Your task to perform on an android device: turn off priority inbox in the gmail app Image 0: 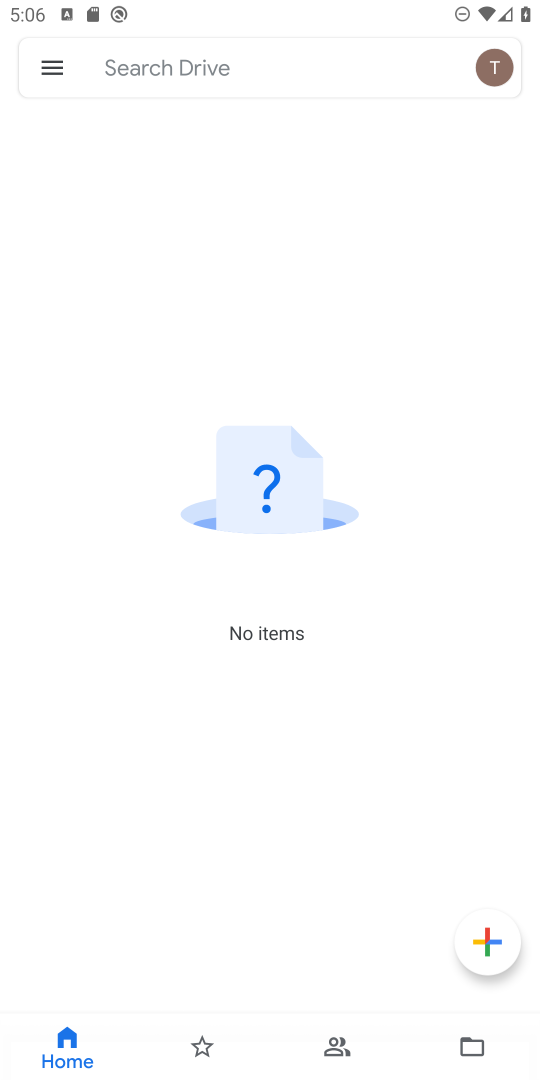
Step 0: press home button
Your task to perform on an android device: turn off priority inbox in the gmail app Image 1: 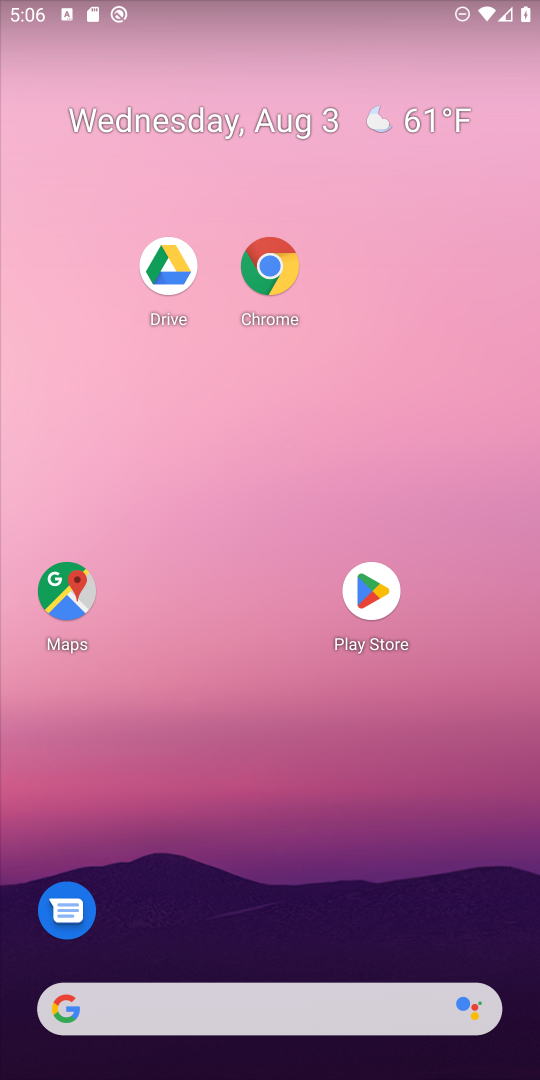
Step 1: drag from (356, 1005) to (440, 56)
Your task to perform on an android device: turn off priority inbox in the gmail app Image 2: 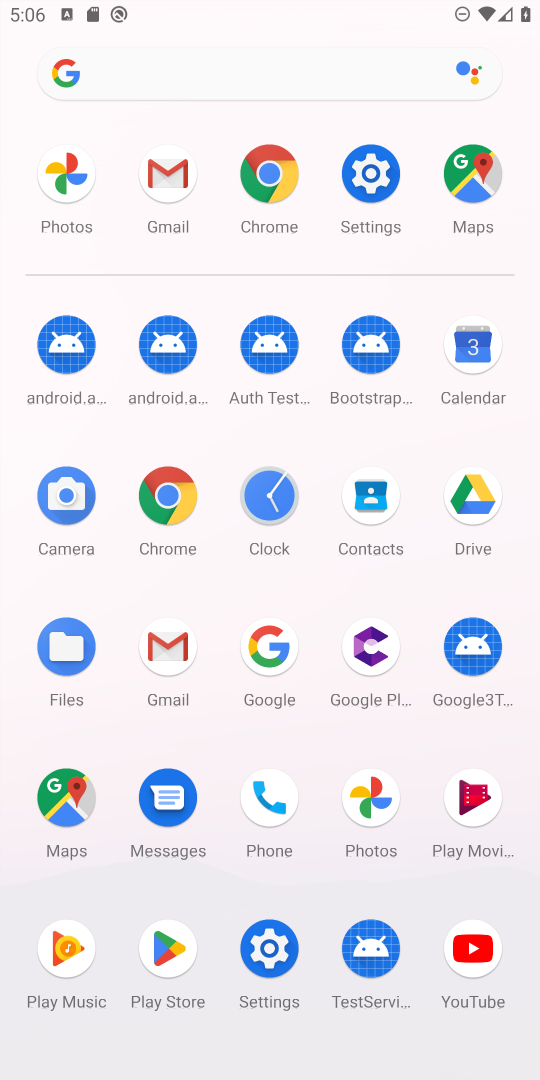
Step 2: click (173, 644)
Your task to perform on an android device: turn off priority inbox in the gmail app Image 3: 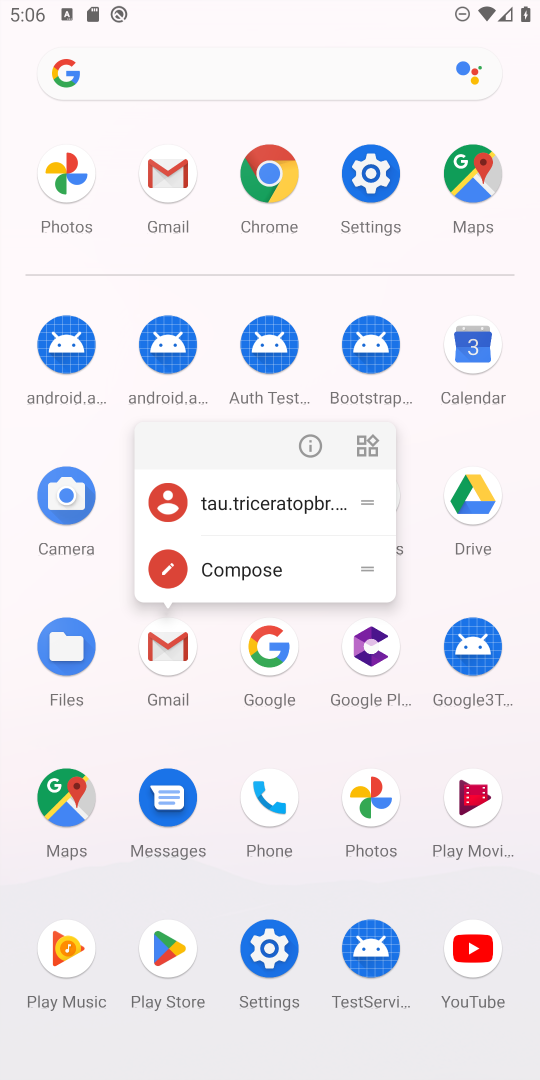
Step 3: click (174, 631)
Your task to perform on an android device: turn off priority inbox in the gmail app Image 4: 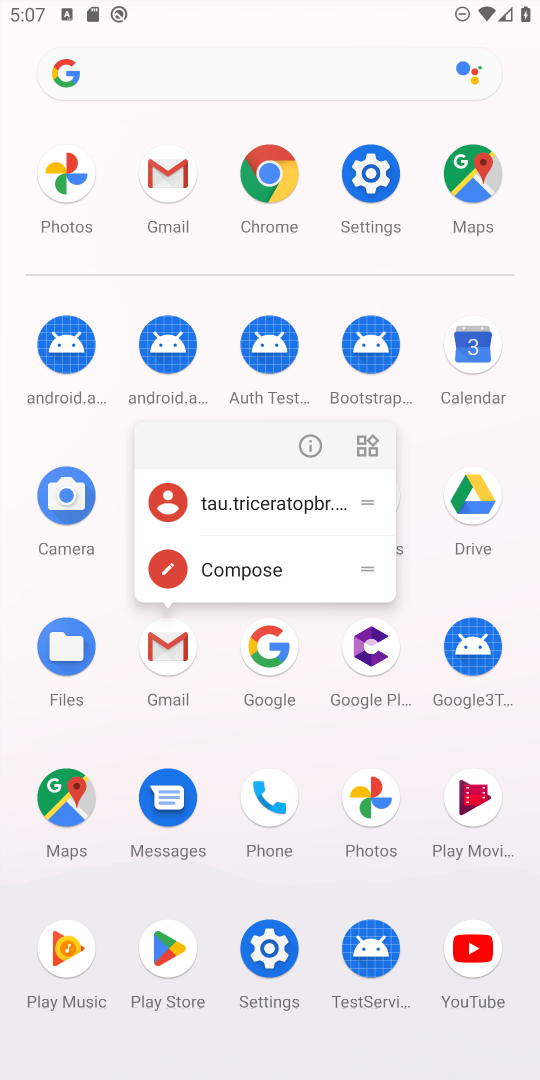
Step 4: click (174, 631)
Your task to perform on an android device: turn off priority inbox in the gmail app Image 5: 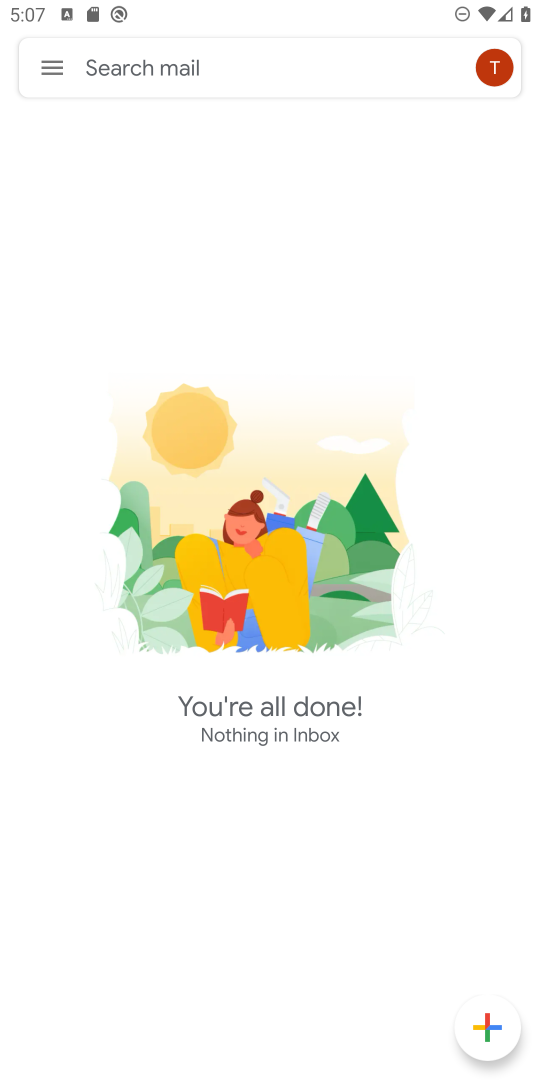
Step 5: click (50, 59)
Your task to perform on an android device: turn off priority inbox in the gmail app Image 6: 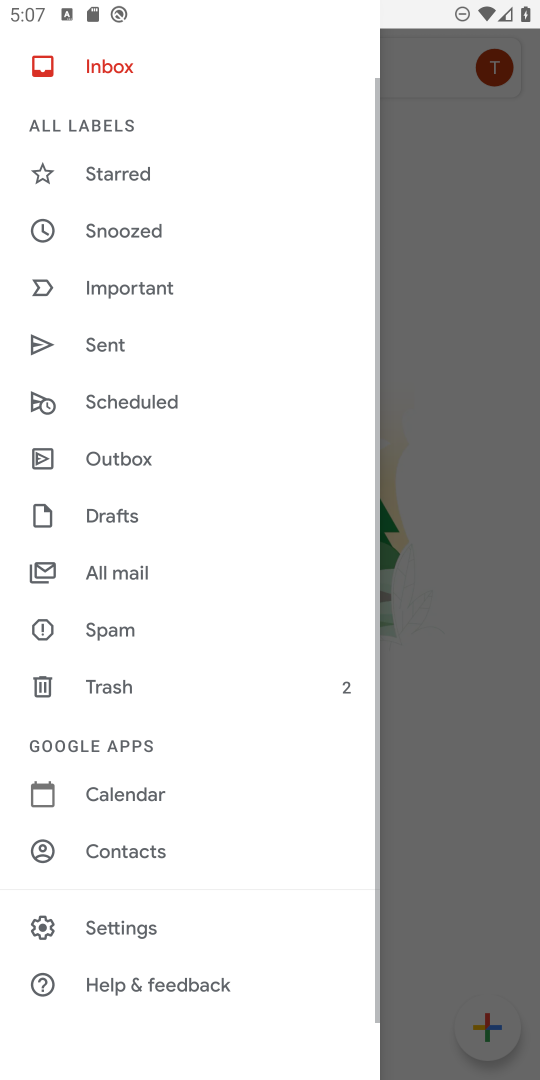
Step 6: click (102, 921)
Your task to perform on an android device: turn off priority inbox in the gmail app Image 7: 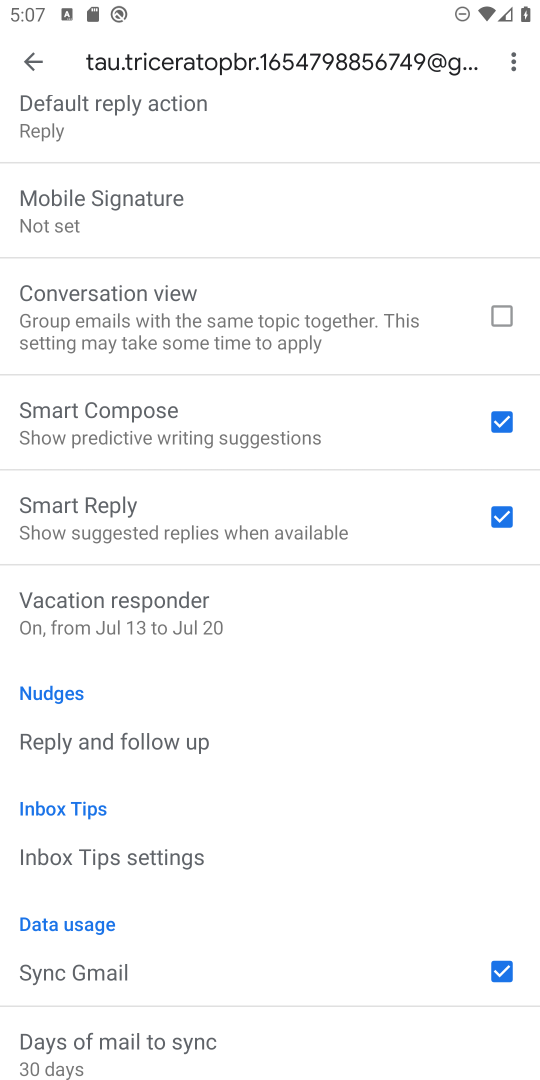
Step 7: drag from (197, 253) to (227, 964)
Your task to perform on an android device: turn off priority inbox in the gmail app Image 8: 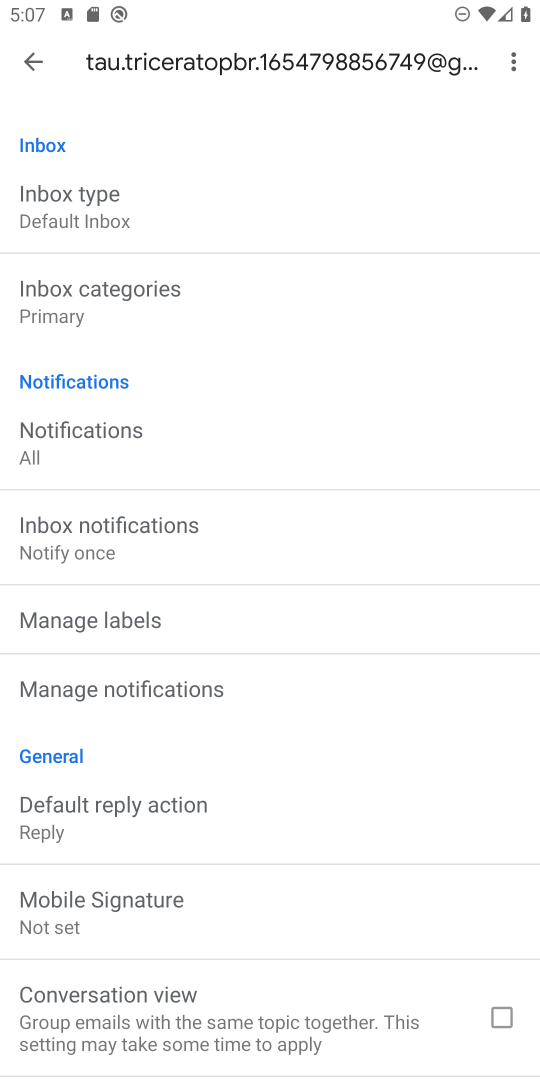
Step 8: click (106, 207)
Your task to perform on an android device: turn off priority inbox in the gmail app Image 9: 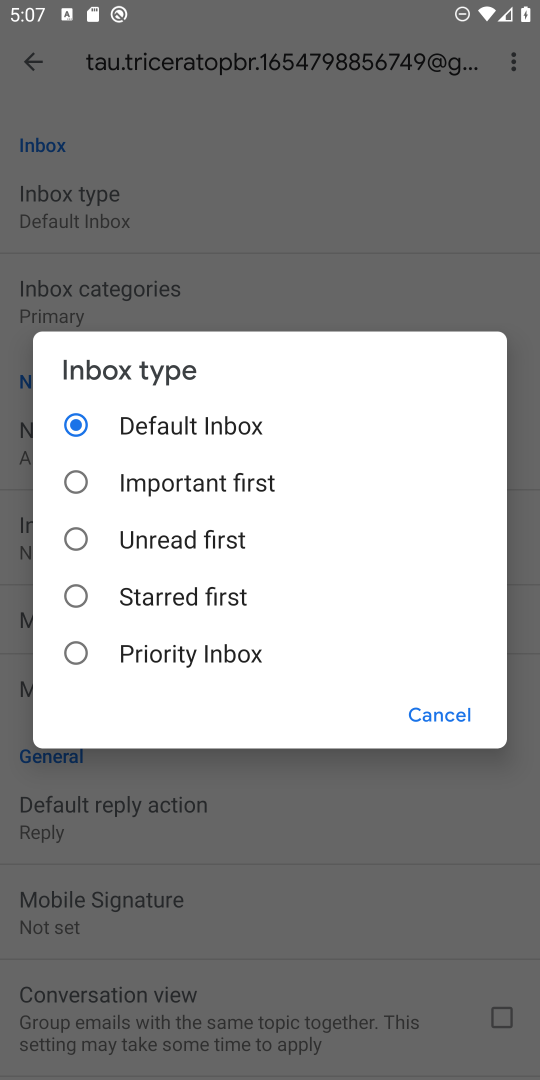
Step 9: task complete